Your task to perform on an android device: turn notification dots off Image 0: 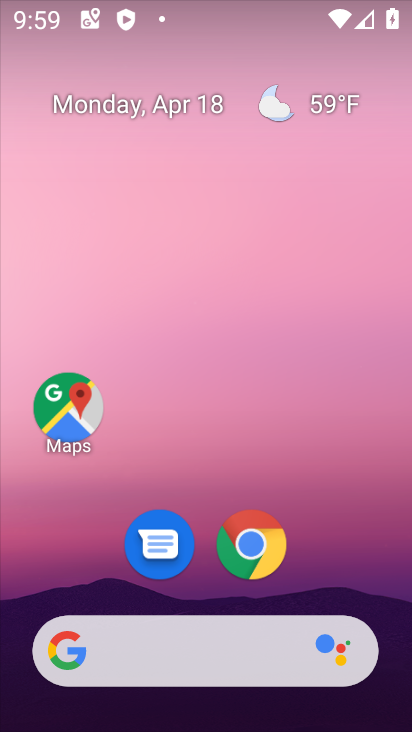
Step 0: drag from (248, 636) to (288, 322)
Your task to perform on an android device: turn notification dots off Image 1: 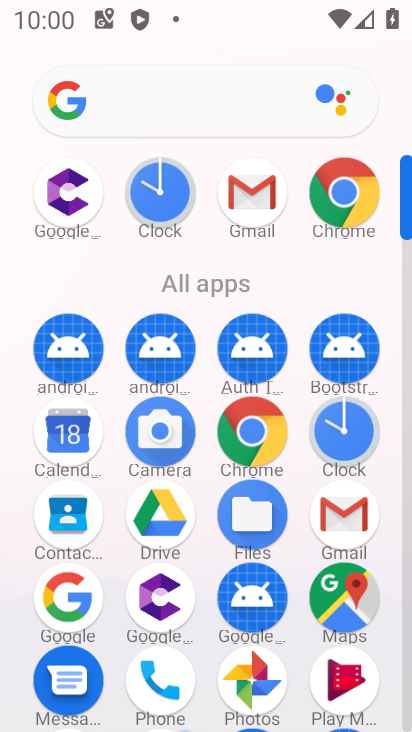
Step 1: drag from (308, 616) to (292, 138)
Your task to perform on an android device: turn notification dots off Image 2: 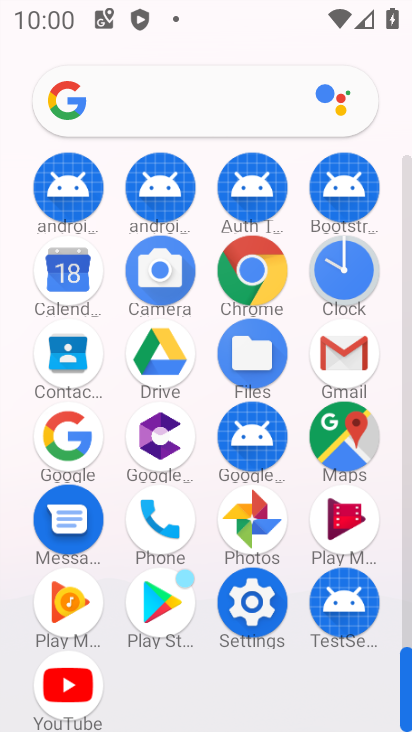
Step 2: click (244, 589)
Your task to perform on an android device: turn notification dots off Image 3: 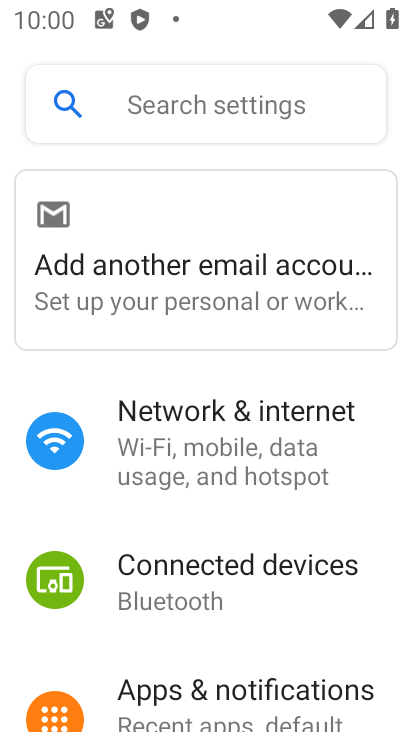
Step 3: click (174, 101)
Your task to perform on an android device: turn notification dots off Image 4: 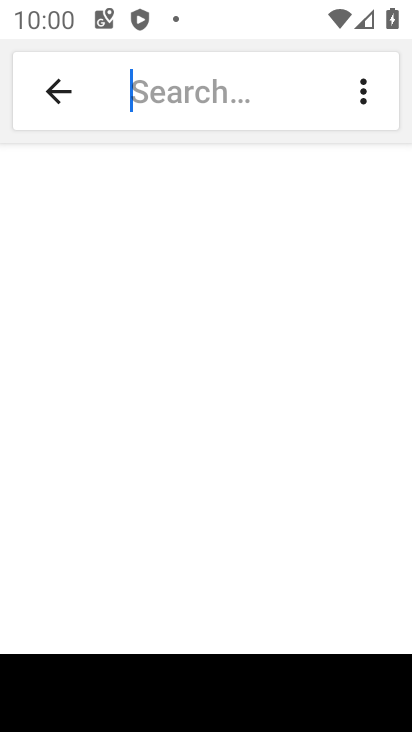
Step 4: type "notification dots off"
Your task to perform on an android device: turn notification dots off Image 5: 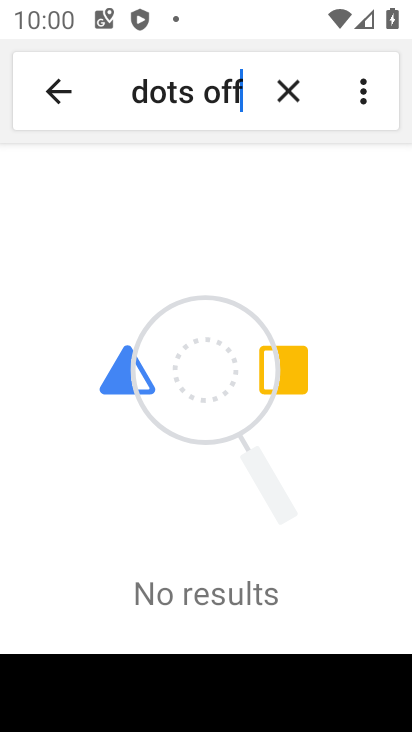
Step 5: click (279, 87)
Your task to perform on an android device: turn notification dots off Image 6: 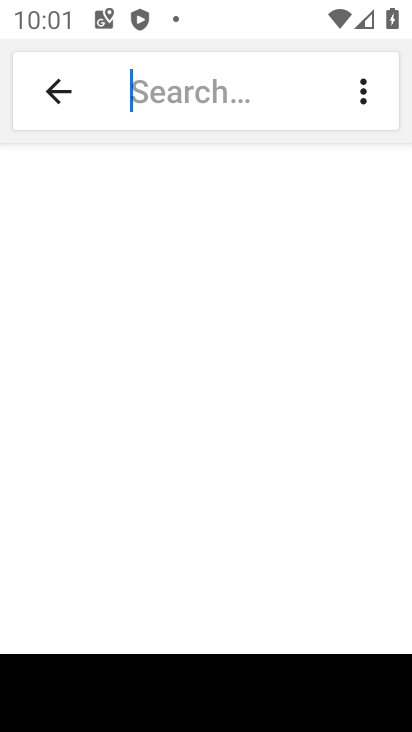
Step 6: type "notification dots "
Your task to perform on an android device: turn notification dots off Image 7: 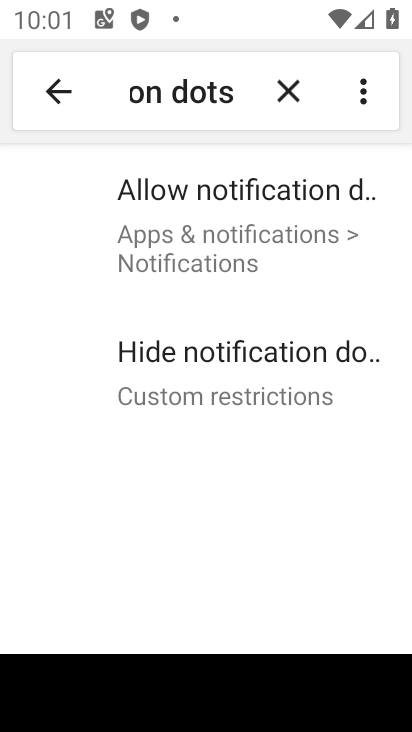
Step 7: click (158, 215)
Your task to perform on an android device: turn notification dots off Image 8: 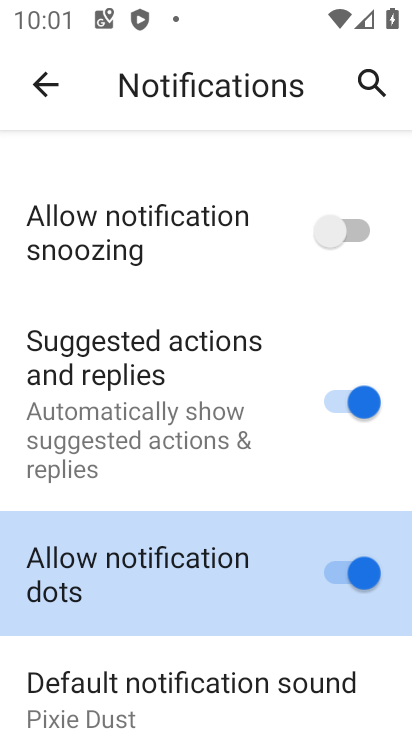
Step 8: click (350, 574)
Your task to perform on an android device: turn notification dots off Image 9: 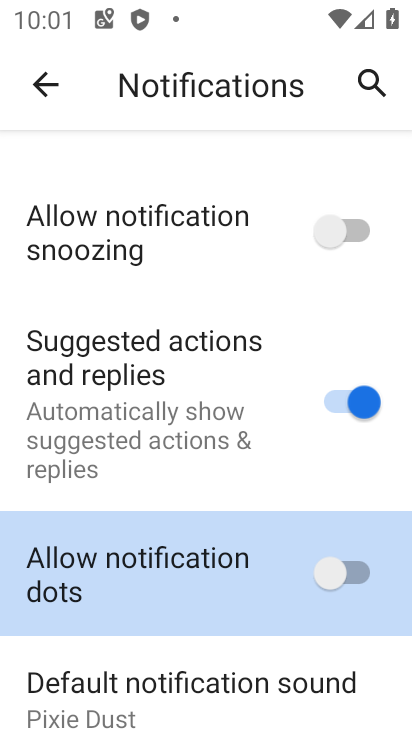
Step 9: task complete